Your task to perform on an android device: turn off javascript in the chrome app Image 0: 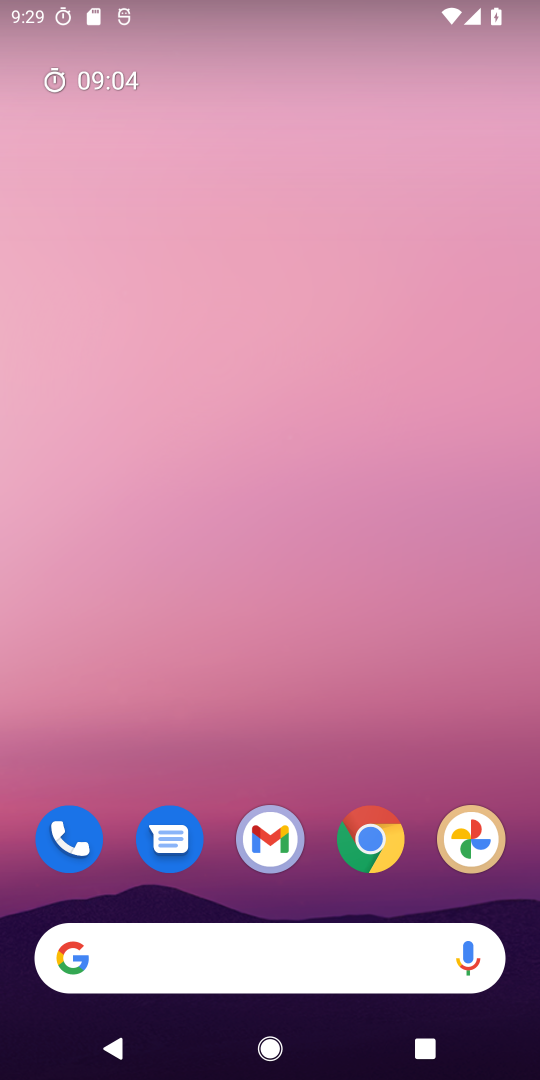
Step 0: click (367, 829)
Your task to perform on an android device: turn off javascript in the chrome app Image 1: 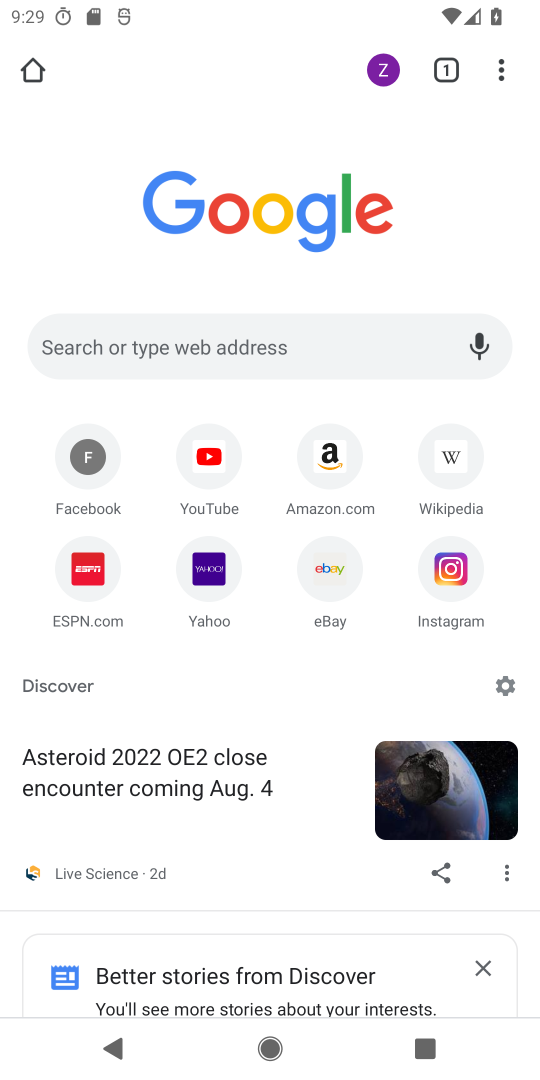
Step 1: click (499, 72)
Your task to perform on an android device: turn off javascript in the chrome app Image 2: 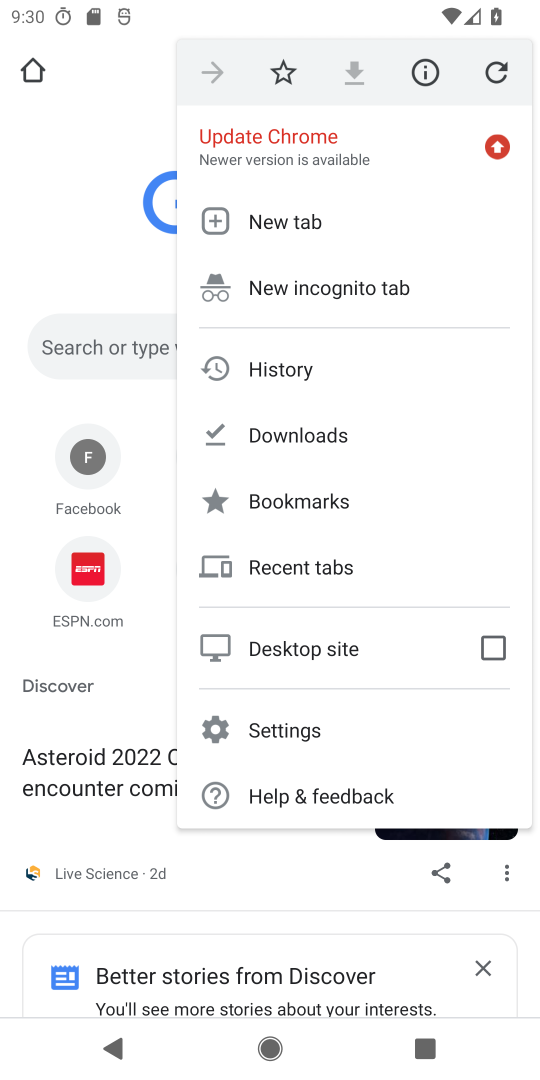
Step 2: click (314, 728)
Your task to perform on an android device: turn off javascript in the chrome app Image 3: 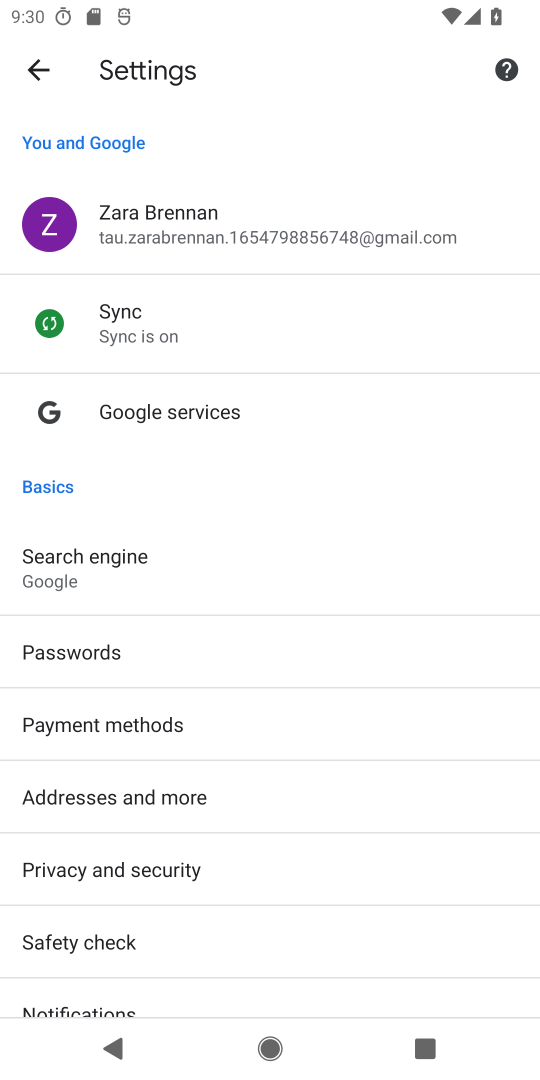
Step 3: drag from (194, 937) to (264, 264)
Your task to perform on an android device: turn off javascript in the chrome app Image 4: 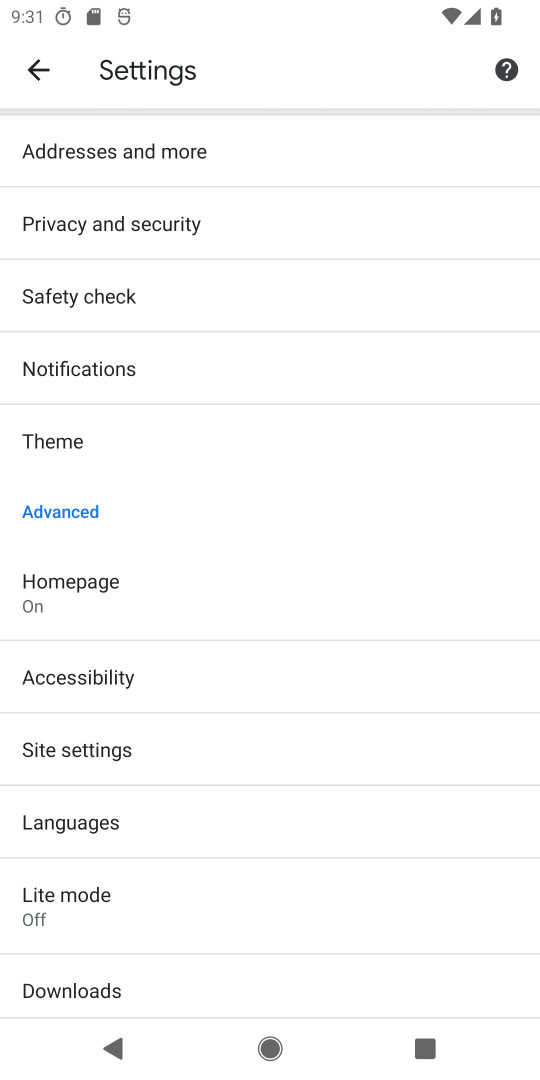
Step 4: click (129, 746)
Your task to perform on an android device: turn off javascript in the chrome app Image 5: 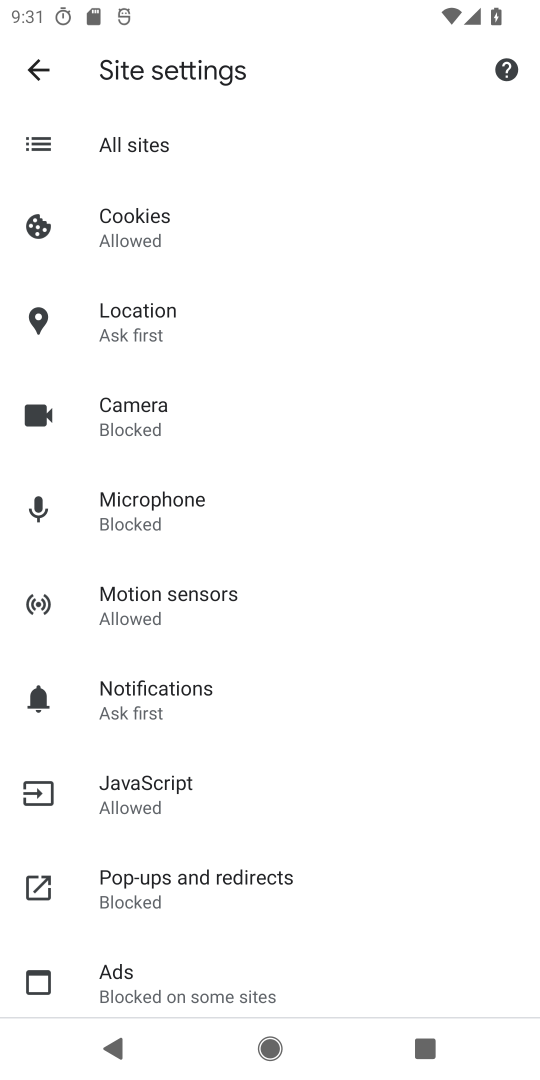
Step 5: click (202, 793)
Your task to perform on an android device: turn off javascript in the chrome app Image 6: 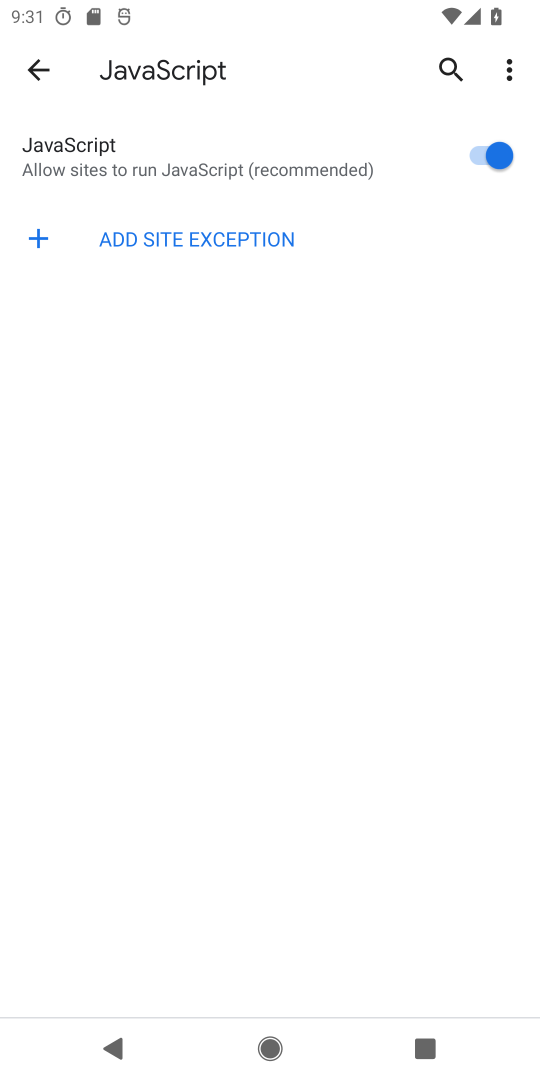
Step 6: click (472, 151)
Your task to perform on an android device: turn off javascript in the chrome app Image 7: 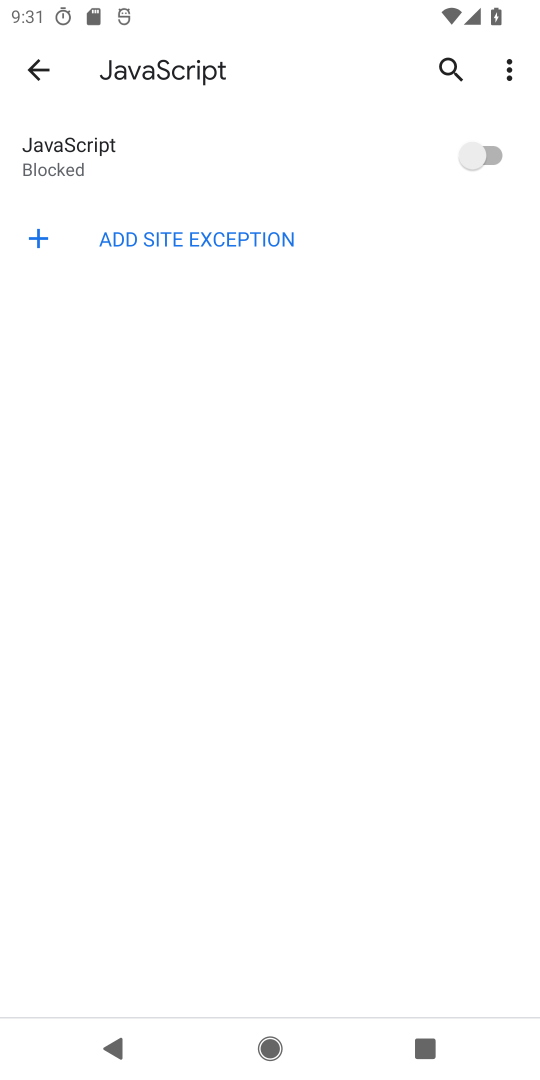
Step 7: task complete